Your task to perform on an android device: Open privacy settings Image 0: 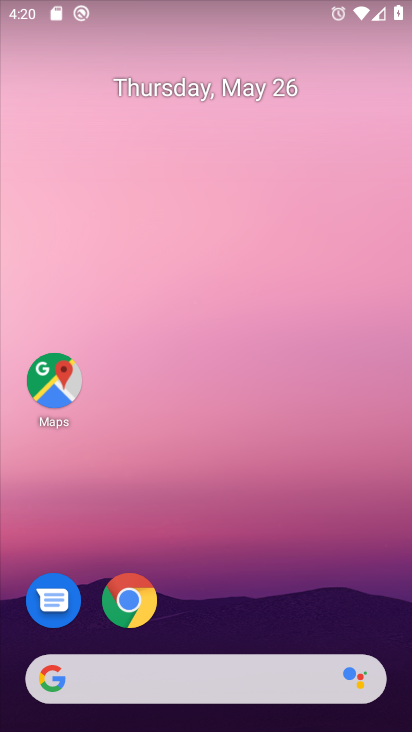
Step 0: drag from (223, 620) to (284, 20)
Your task to perform on an android device: Open privacy settings Image 1: 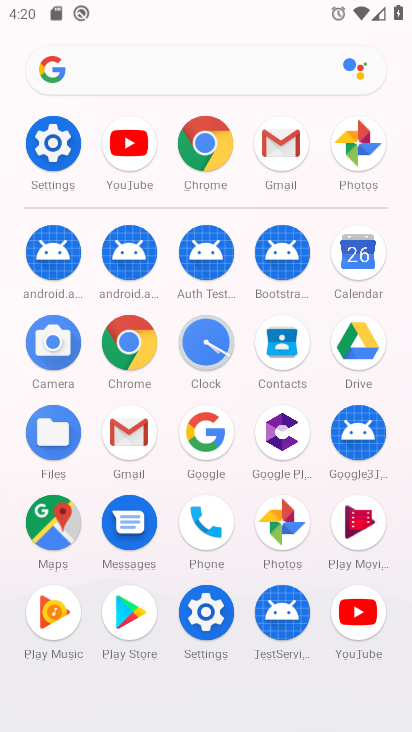
Step 1: click (61, 160)
Your task to perform on an android device: Open privacy settings Image 2: 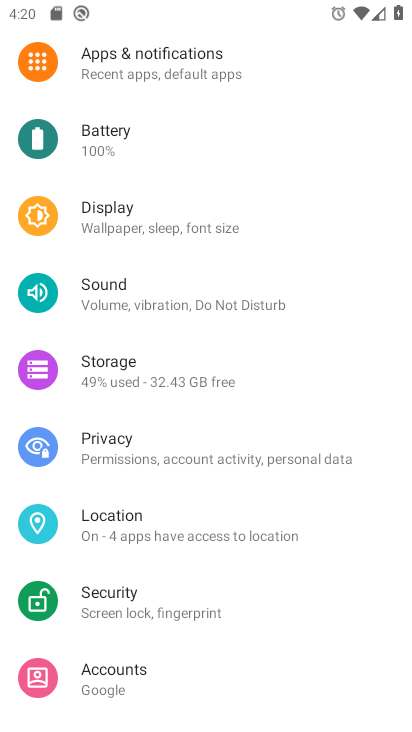
Step 2: click (152, 448)
Your task to perform on an android device: Open privacy settings Image 3: 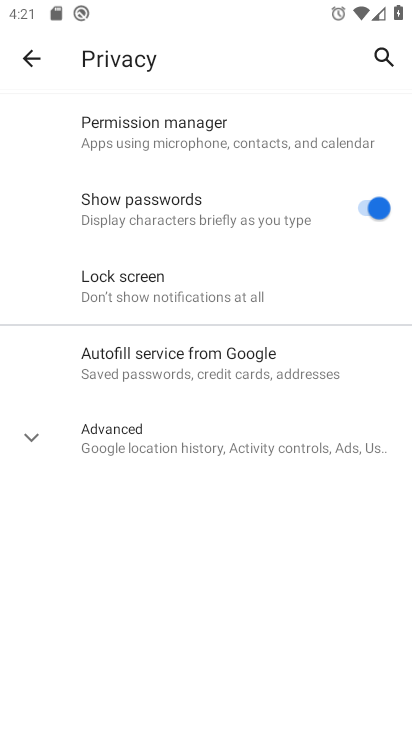
Step 3: task complete